Your task to perform on an android device: manage bookmarks in the chrome app Image 0: 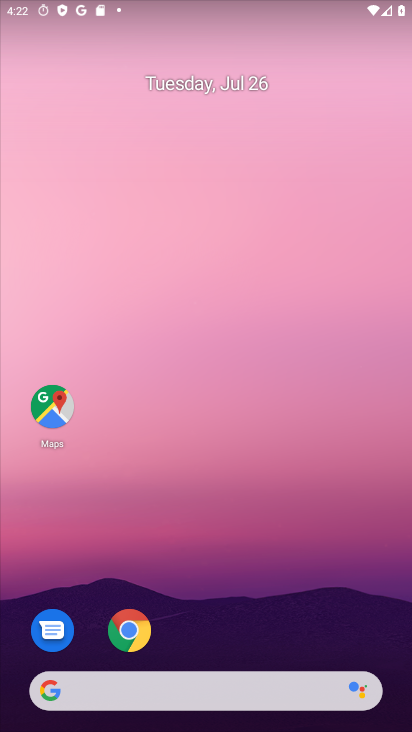
Step 0: drag from (315, 592) to (279, 64)
Your task to perform on an android device: manage bookmarks in the chrome app Image 1: 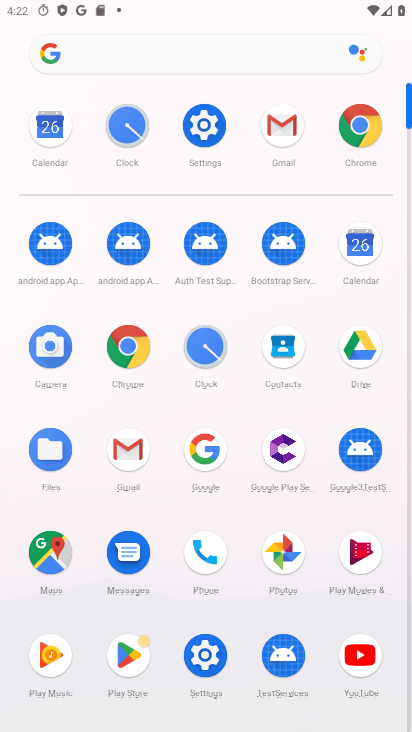
Step 1: click (364, 129)
Your task to perform on an android device: manage bookmarks in the chrome app Image 2: 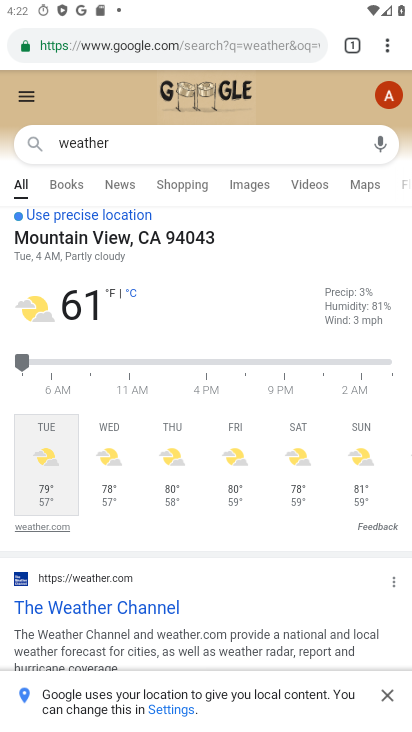
Step 2: drag from (397, 38) to (231, 182)
Your task to perform on an android device: manage bookmarks in the chrome app Image 3: 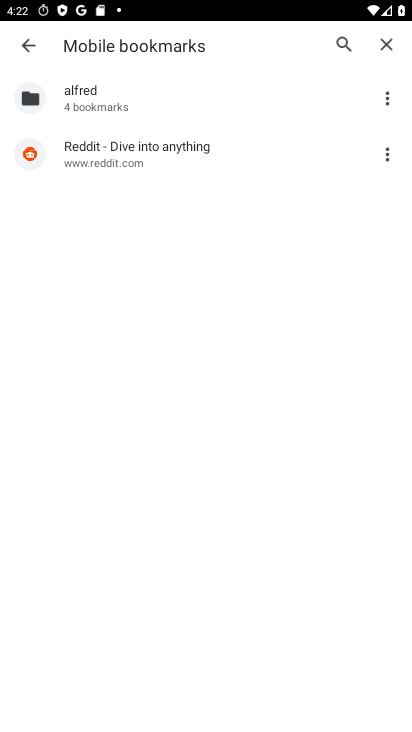
Step 3: click (390, 152)
Your task to perform on an android device: manage bookmarks in the chrome app Image 4: 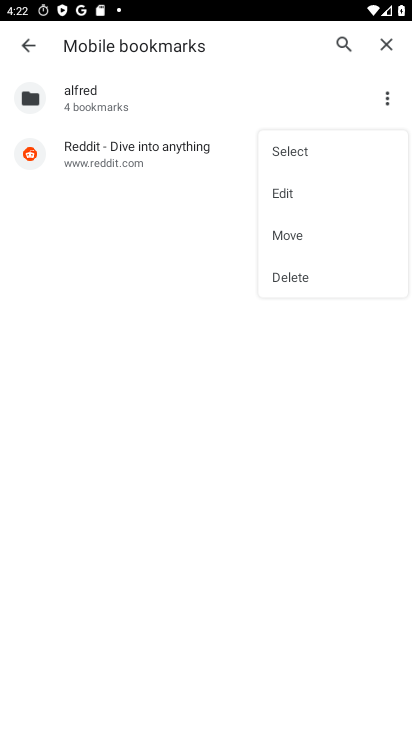
Step 4: click (290, 273)
Your task to perform on an android device: manage bookmarks in the chrome app Image 5: 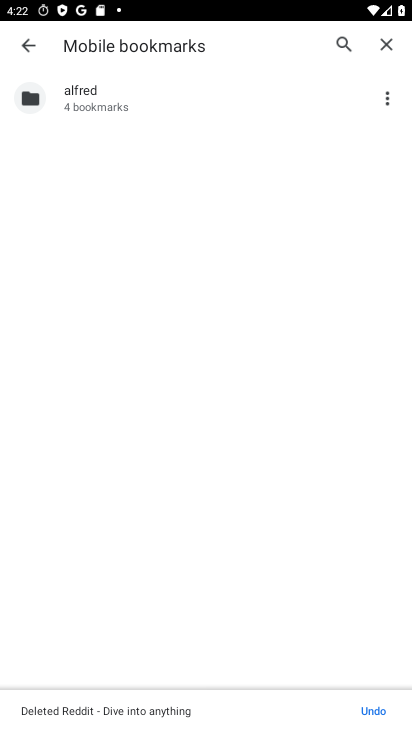
Step 5: task complete